Your task to perform on an android device: turn off sleep mode Image 0: 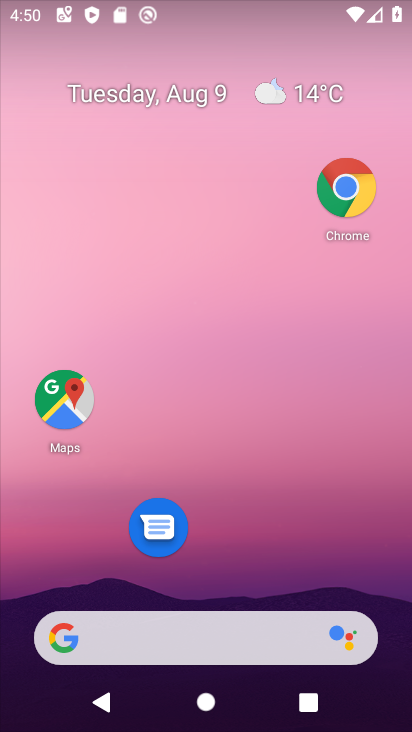
Step 0: drag from (227, 583) to (293, 108)
Your task to perform on an android device: turn off sleep mode Image 1: 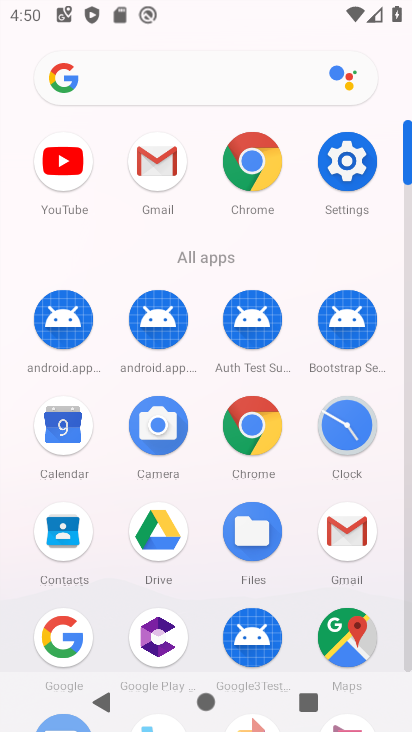
Step 1: click (352, 178)
Your task to perform on an android device: turn off sleep mode Image 2: 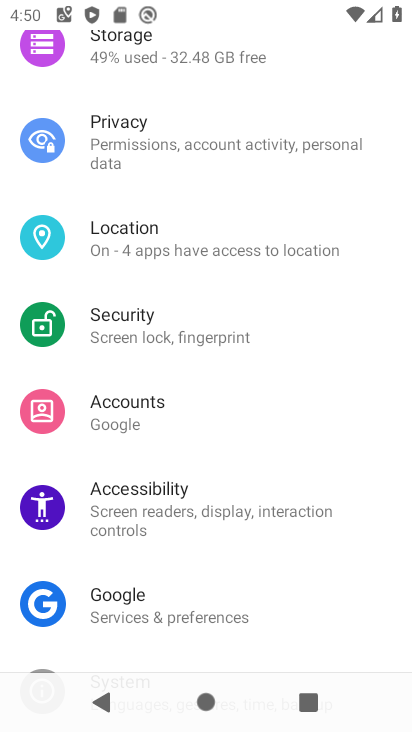
Step 2: task complete